Your task to perform on an android device: Open the stopwatch Image 0: 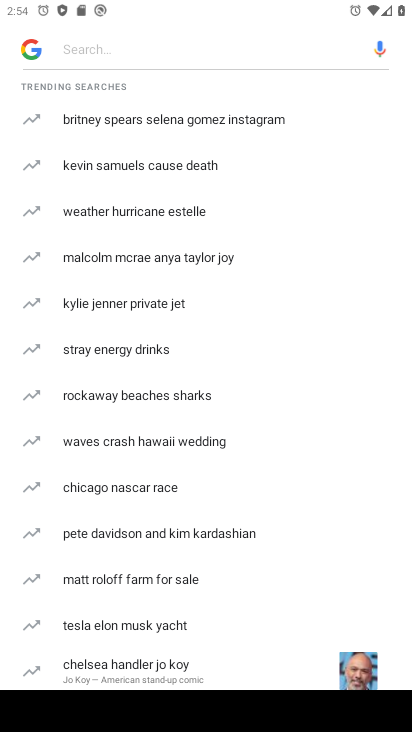
Step 0: press home button
Your task to perform on an android device: Open the stopwatch Image 1: 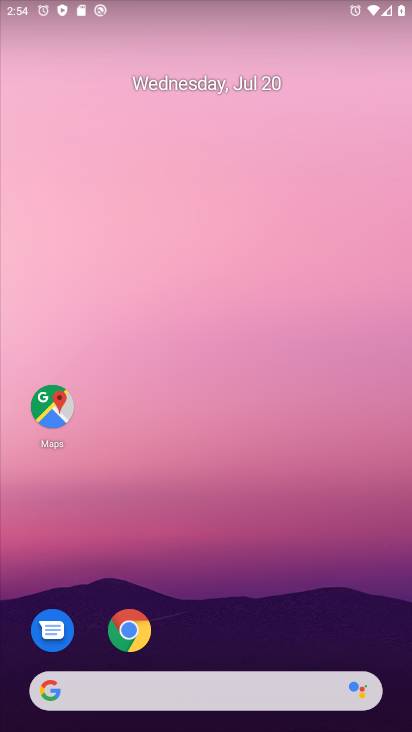
Step 1: drag from (110, 478) to (373, 88)
Your task to perform on an android device: Open the stopwatch Image 2: 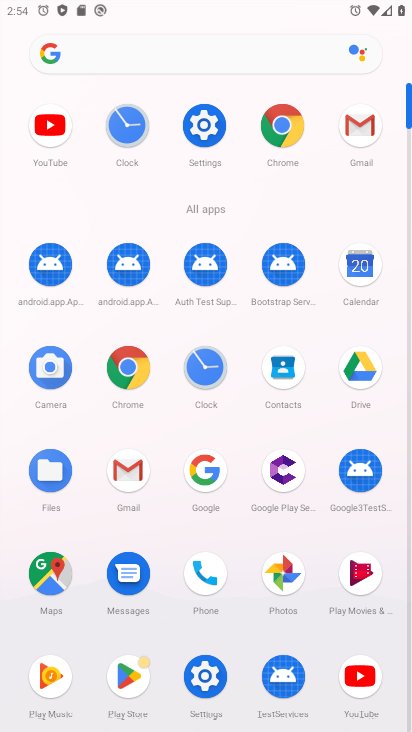
Step 2: click (110, 130)
Your task to perform on an android device: Open the stopwatch Image 3: 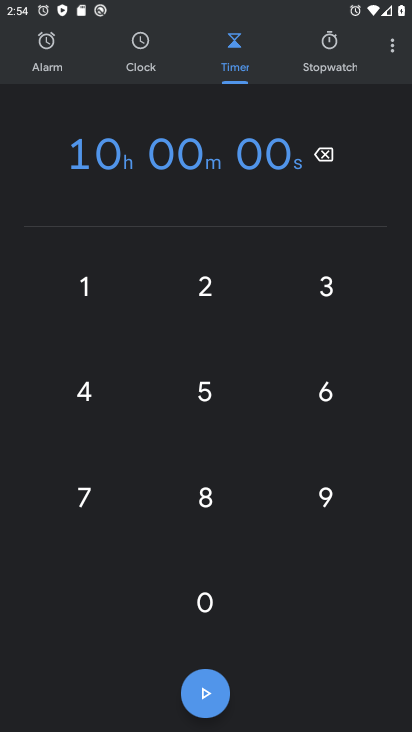
Step 3: click (348, 62)
Your task to perform on an android device: Open the stopwatch Image 4: 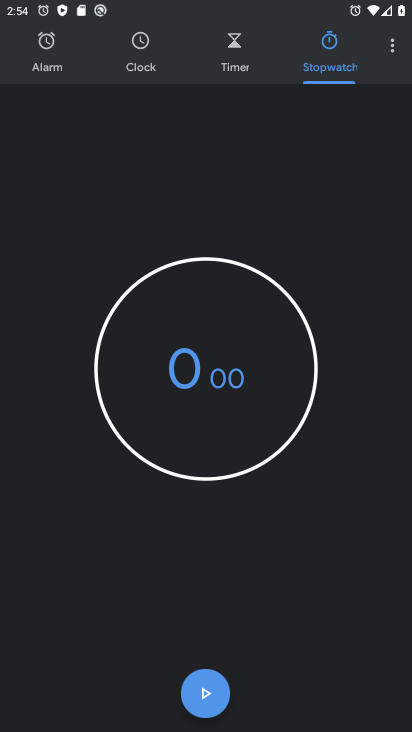
Step 4: click (202, 703)
Your task to perform on an android device: Open the stopwatch Image 5: 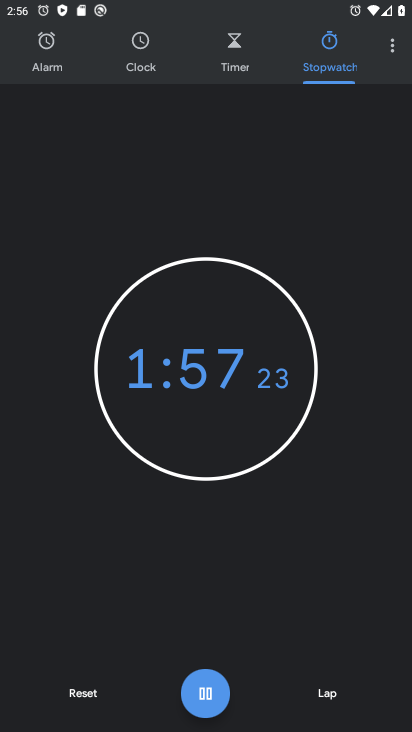
Step 5: task complete